Your task to perform on an android device: Open location settings Image 0: 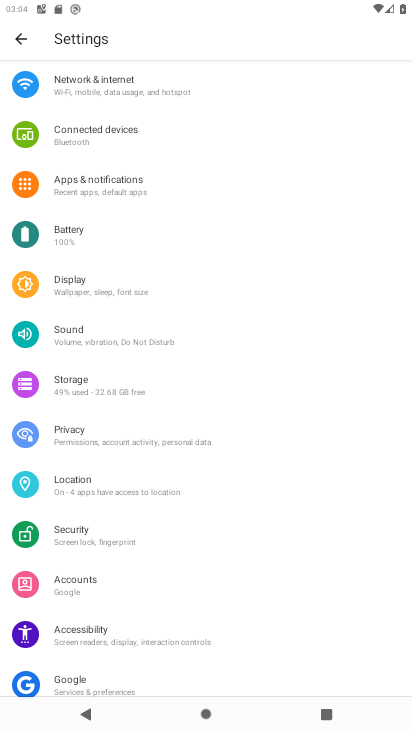
Step 0: click (121, 492)
Your task to perform on an android device: Open location settings Image 1: 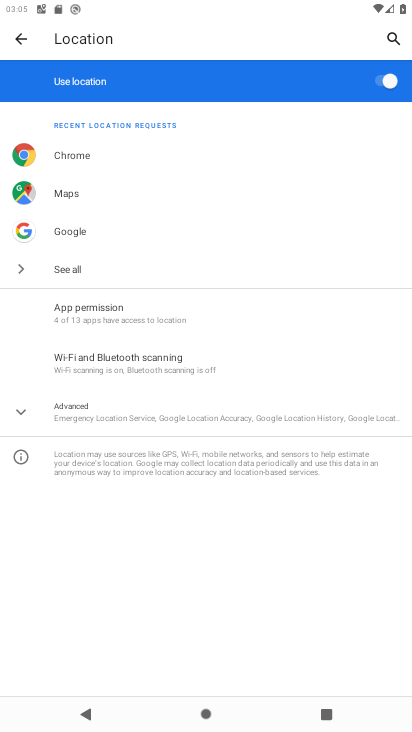
Step 1: task complete